Your task to perform on an android device: turn pop-ups off in chrome Image 0: 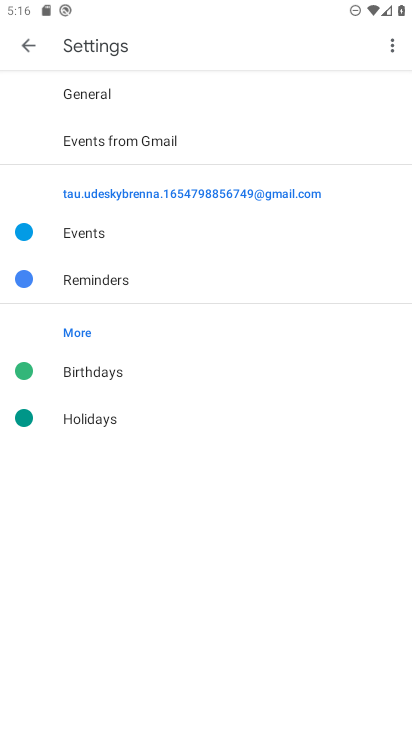
Step 0: press home button
Your task to perform on an android device: turn pop-ups off in chrome Image 1: 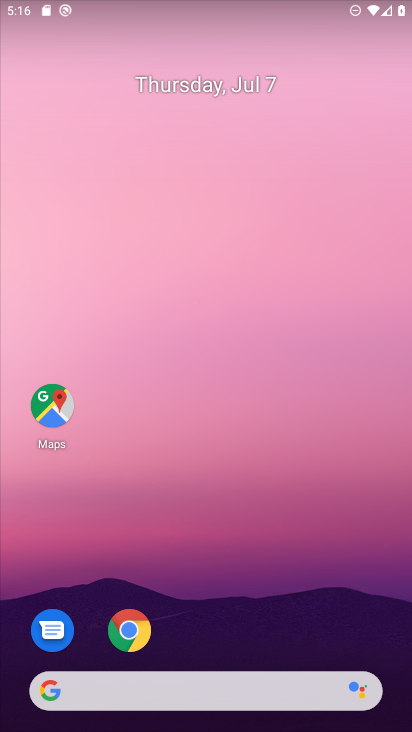
Step 1: drag from (271, 631) to (239, 161)
Your task to perform on an android device: turn pop-ups off in chrome Image 2: 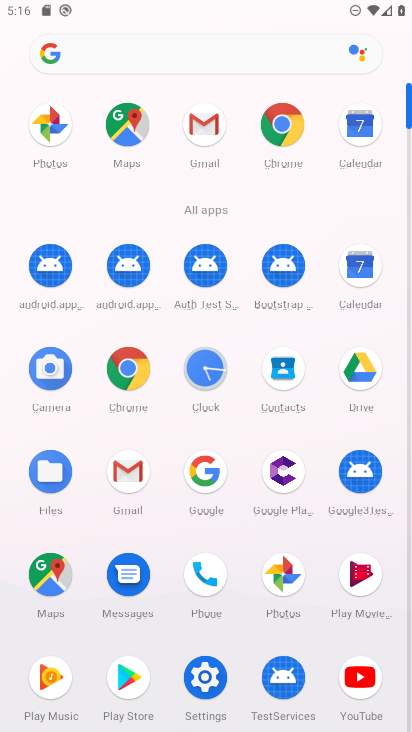
Step 2: click (280, 124)
Your task to perform on an android device: turn pop-ups off in chrome Image 3: 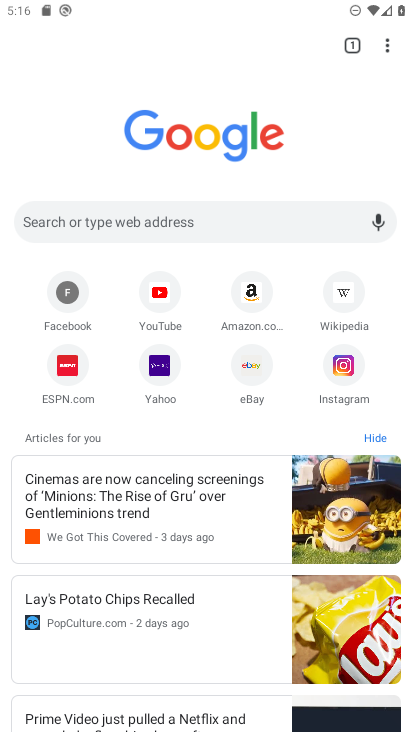
Step 3: drag from (384, 44) to (239, 381)
Your task to perform on an android device: turn pop-ups off in chrome Image 4: 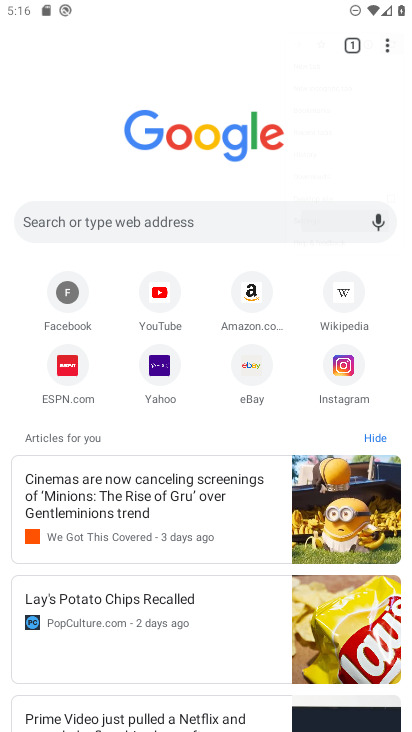
Step 4: click (226, 388)
Your task to perform on an android device: turn pop-ups off in chrome Image 5: 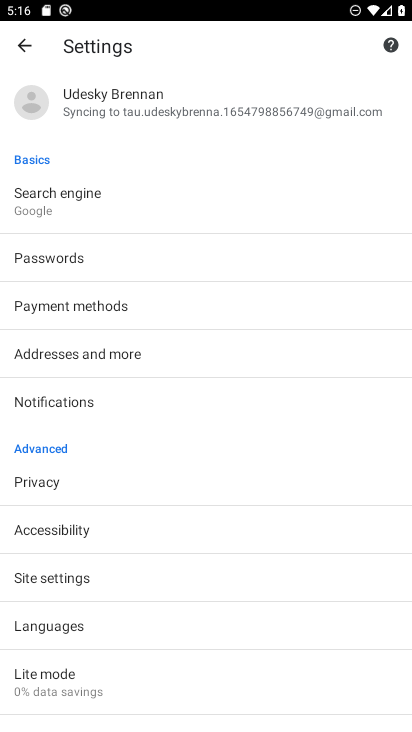
Step 5: click (70, 583)
Your task to perform on an android device: turn pop-ups off in chrome Image 6: 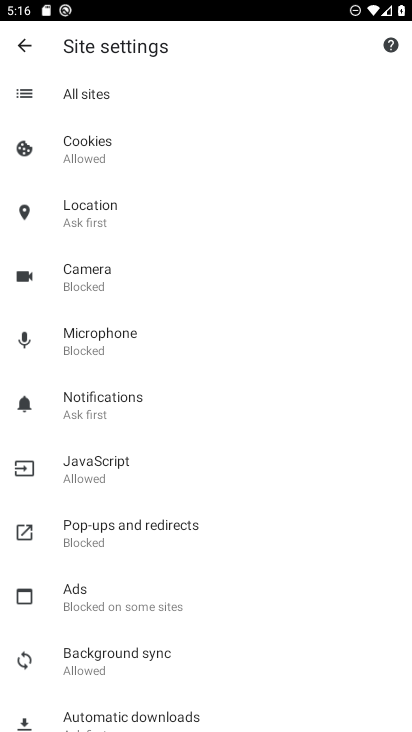
Step 6: click (98, 530)
Your task to perform on an android device: turn pop-ups off in chrome Image 7: 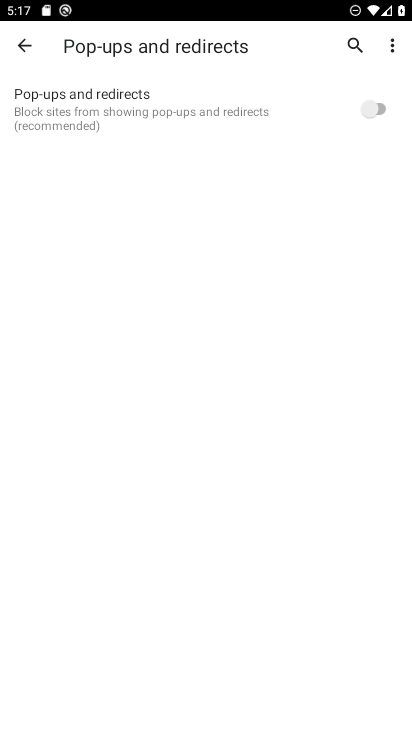
Step 7: task complete